Your task to perform on an android device: turn on notifications settings in the gmail app Image 0: 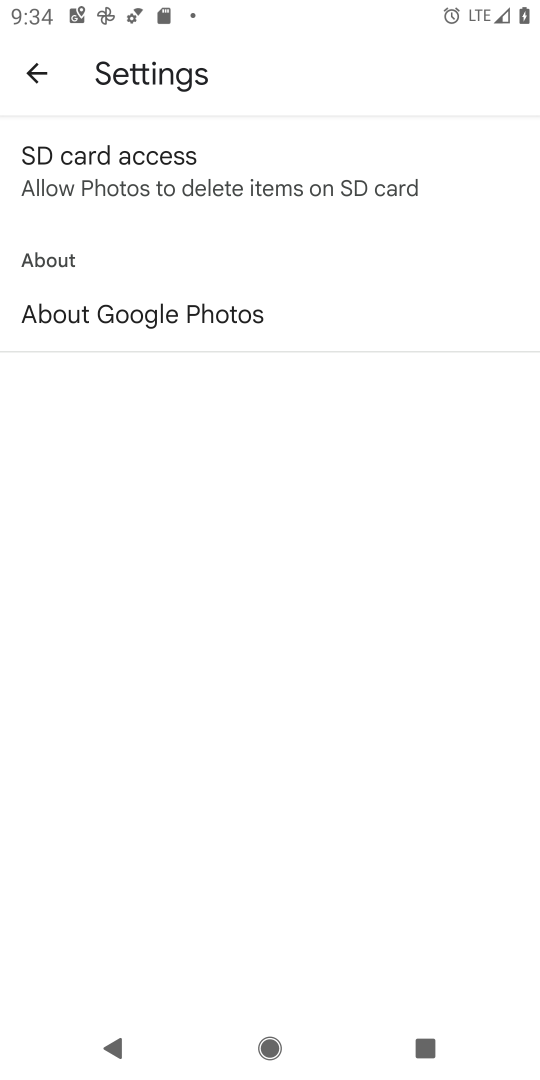
Step 0: press home button
Your task to perform on an android device: turn on notifications settings in the gmail app Image 1: 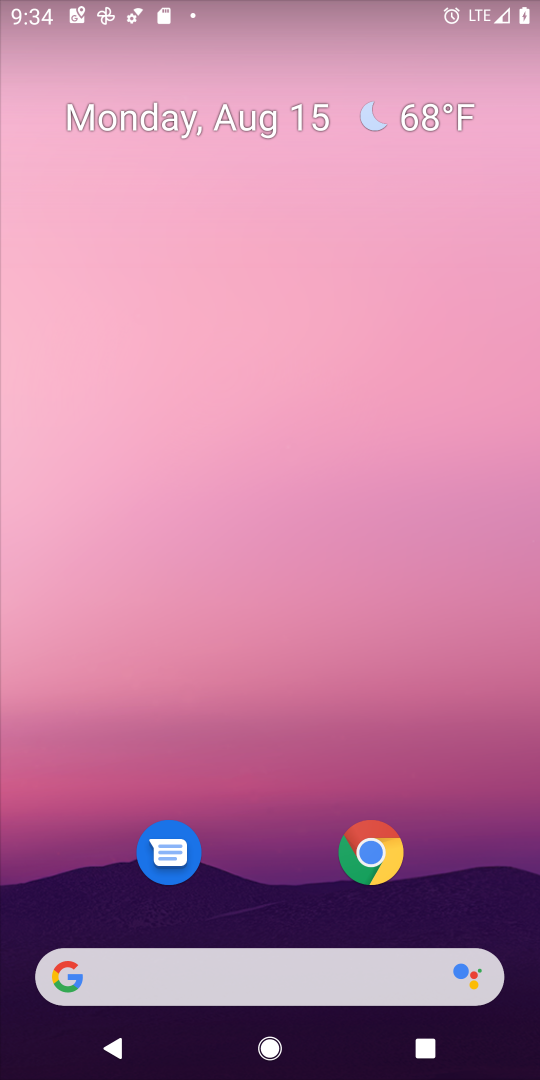
Step 1: drag from (188, 976) to (347, 135)
Your task to perform on an android device: turn on notifications settings in the gmail app Image 2: 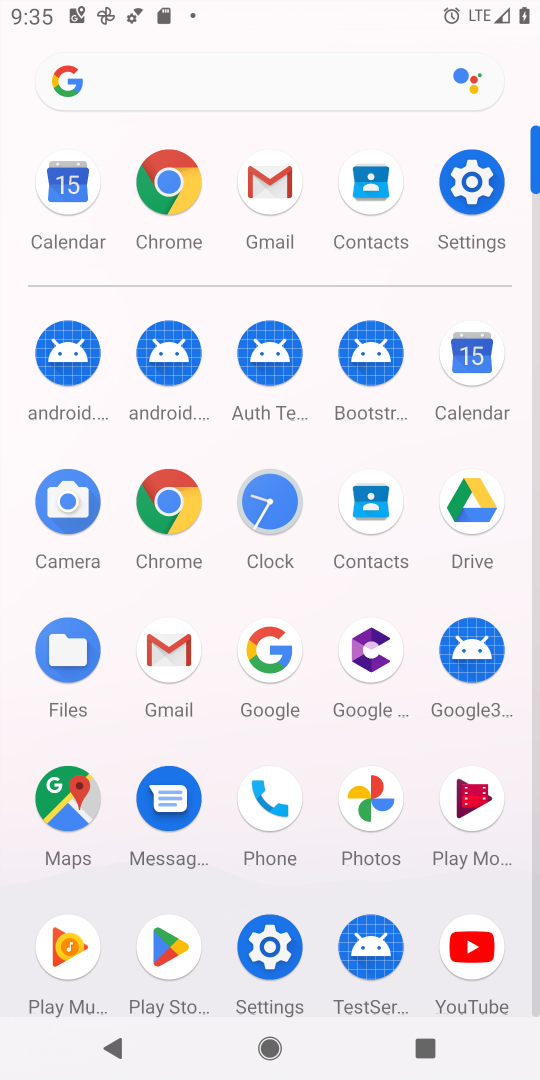
Step 2: click (271, 180)
Your task to perform on an android device: turn on notifications settings in the gmail app Image 3: 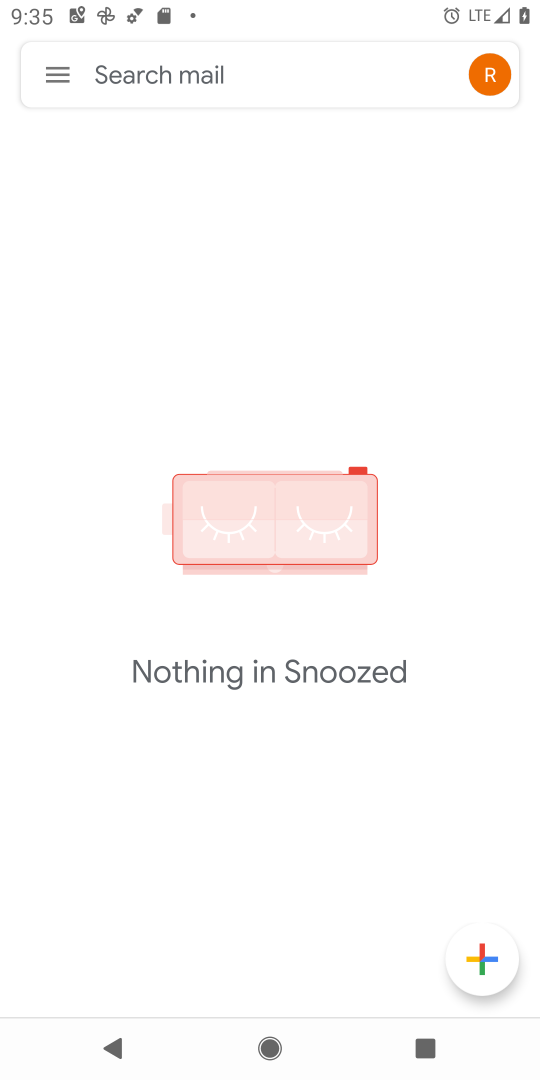
Step 3: click (61, 77)
Your task to perform on an android device: turn on notifications settings in the gmail app Image 4: 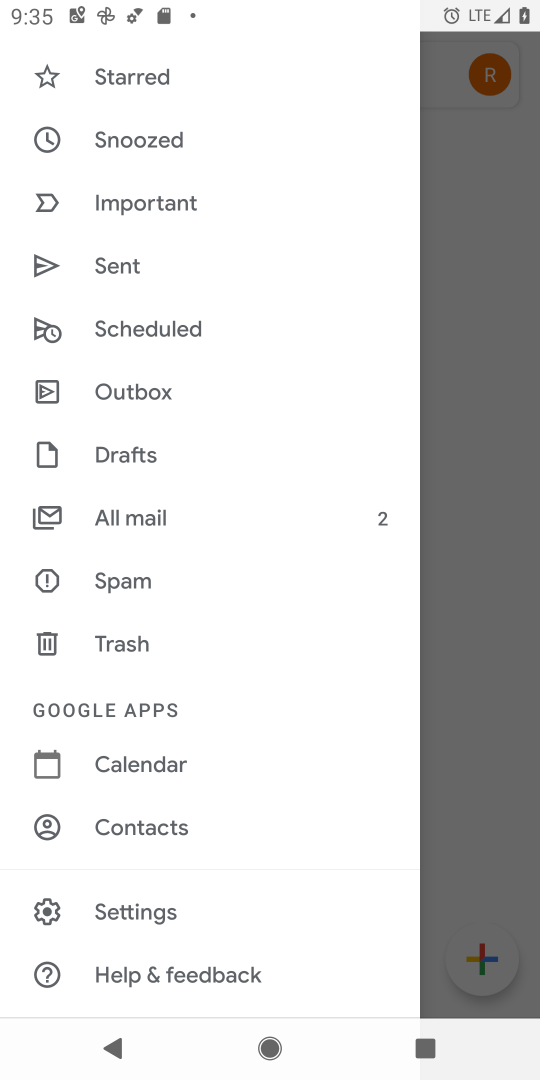
Step 4: click (144, 911)
Your task to perform on an android device: turn on notifications settings in the gmail app Image 5: 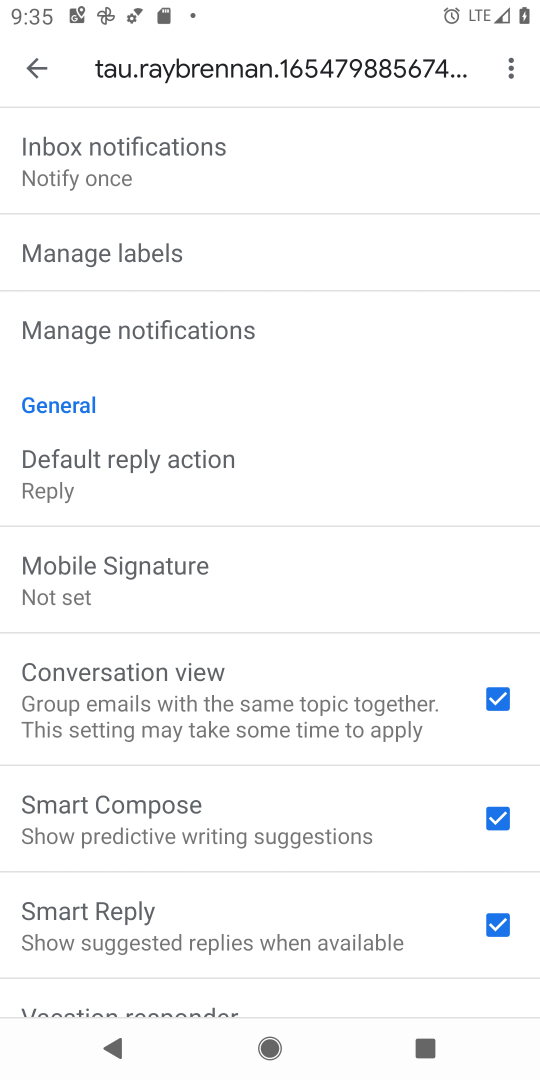
Step 5: click (242, 328)
Your task to perform on an android device: turn on notifications settings in the gmail app Image 6: 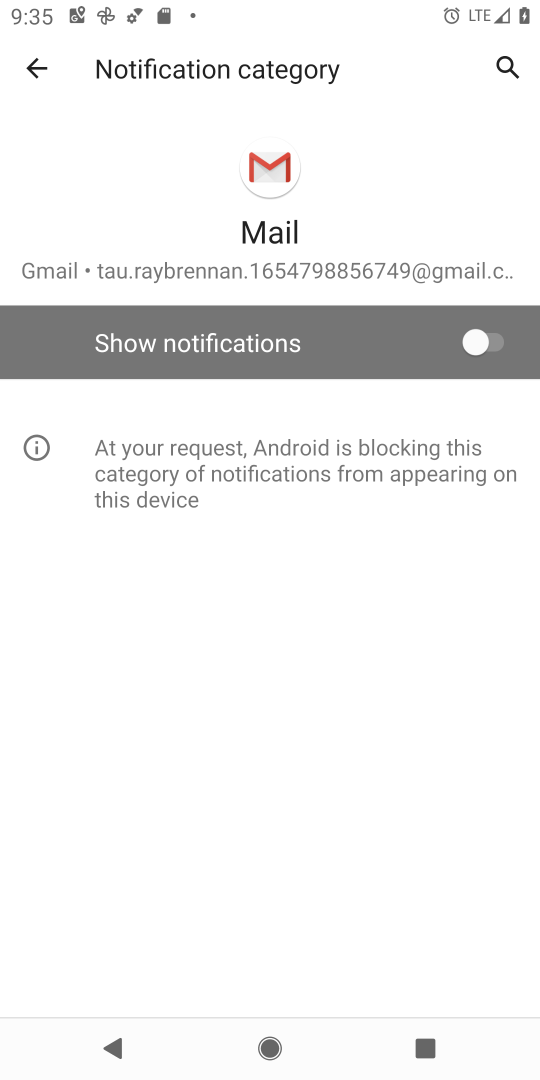
Step 6: click (486, 349)
Your task to perform on an android device: turn on notifications settings in the gmail app Image 7: 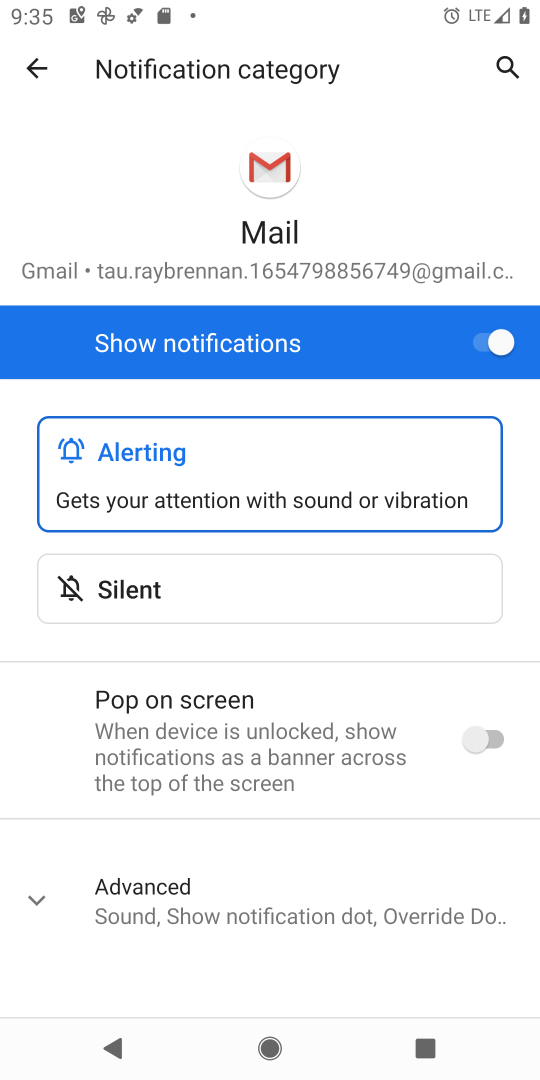
Step 7: task complete